Your task to perform on an android device: Go to calendar. Show me events next week Image 0: 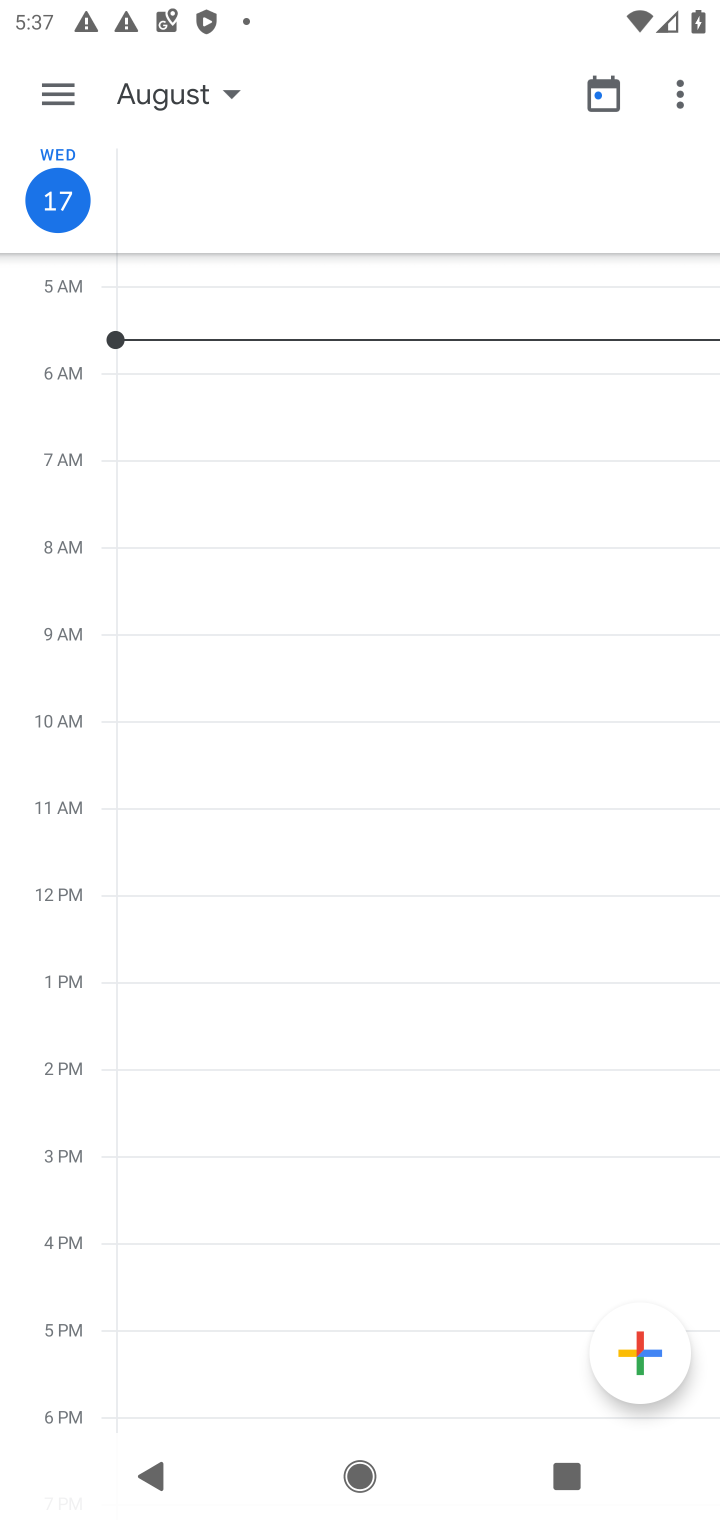
Step 0: press home button
Your task to perform on an android device: Go to calendar. Show me events next week Image 1: 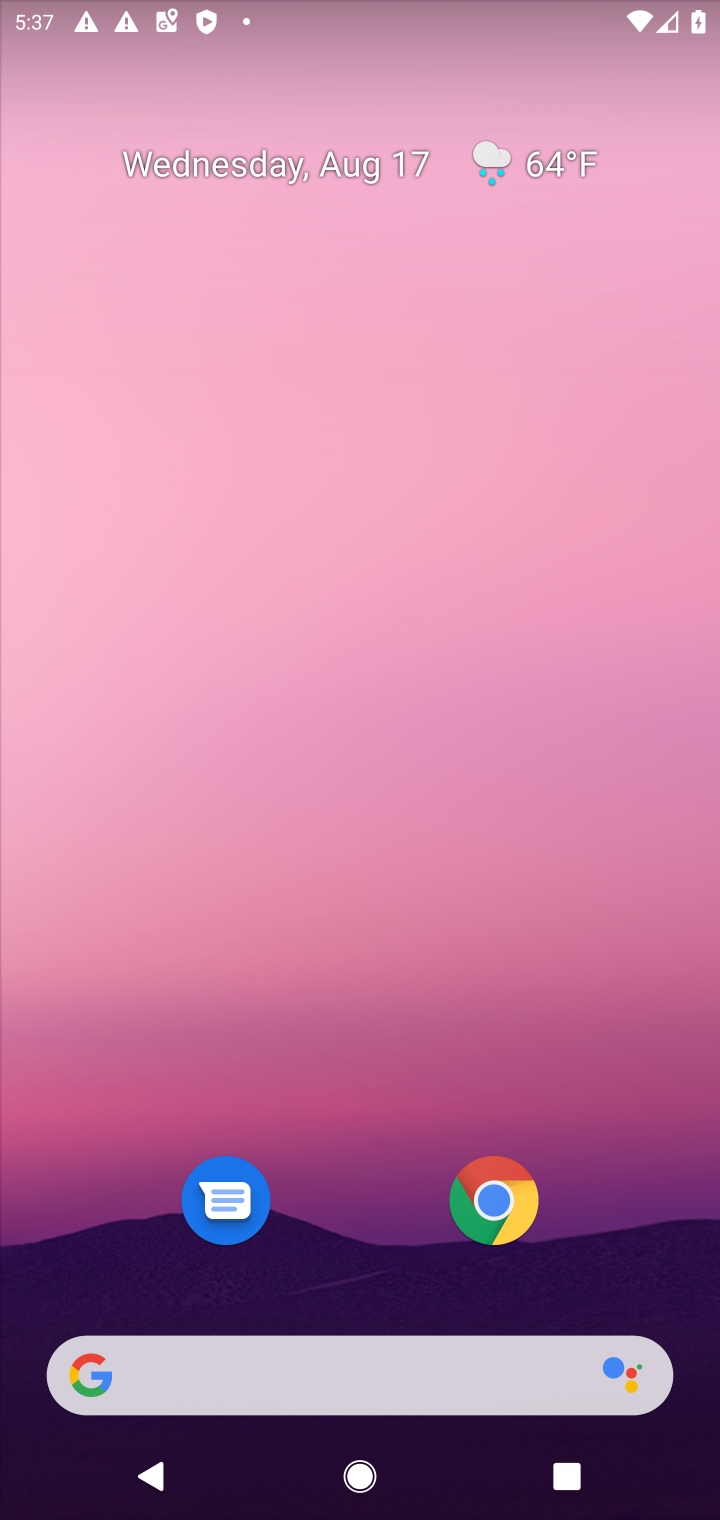
Step 1: drag from (278, 696) to (278, 211)
Your task to perform on an android device: Go to calendar. Show me events next week Image 2: 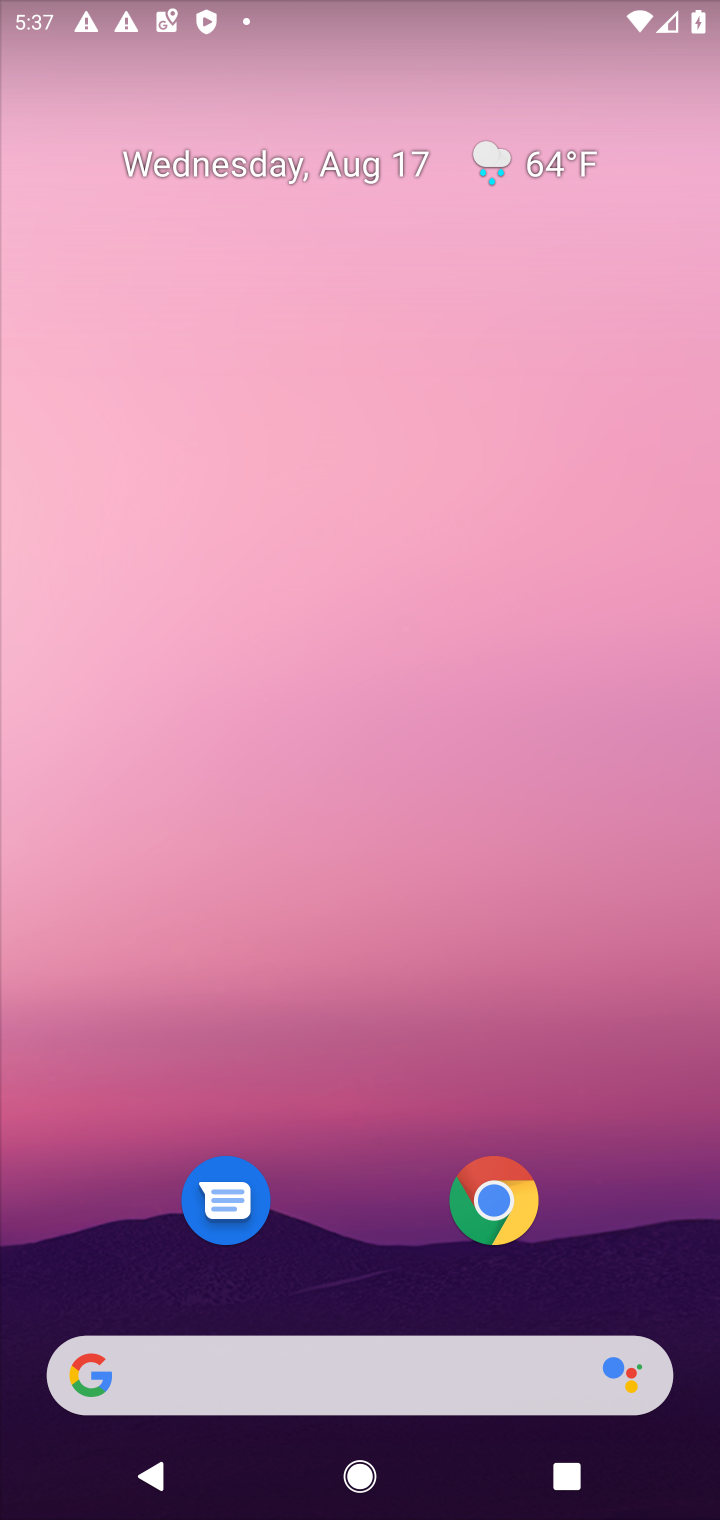
Step 2: drag from (359, 1082) to (357, 291)
Your task to perform on an android device: Go to calendar. Show me events next week Image 3: 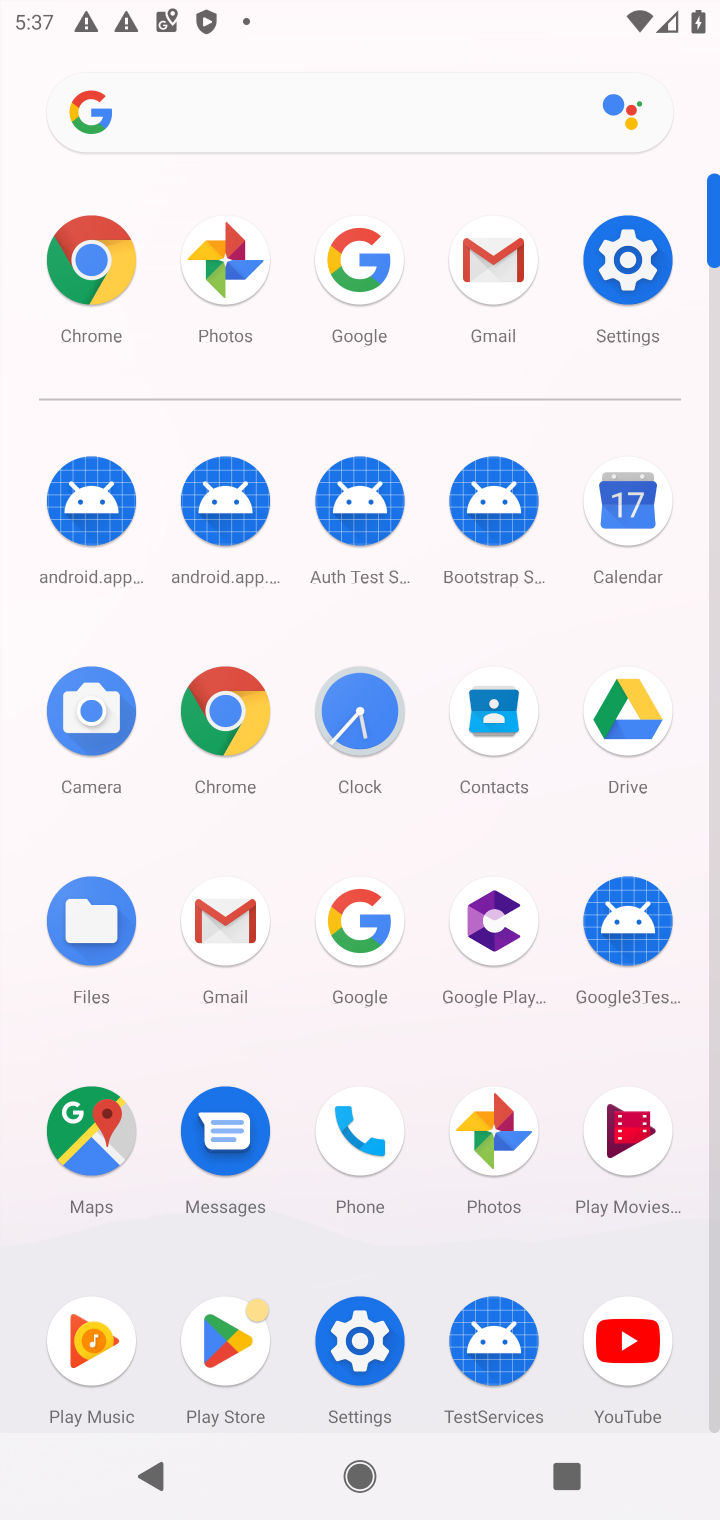
Step 3: click (631, 528)
Your task to perform on an android device: Go to calendar. Show me events next week Image 4: 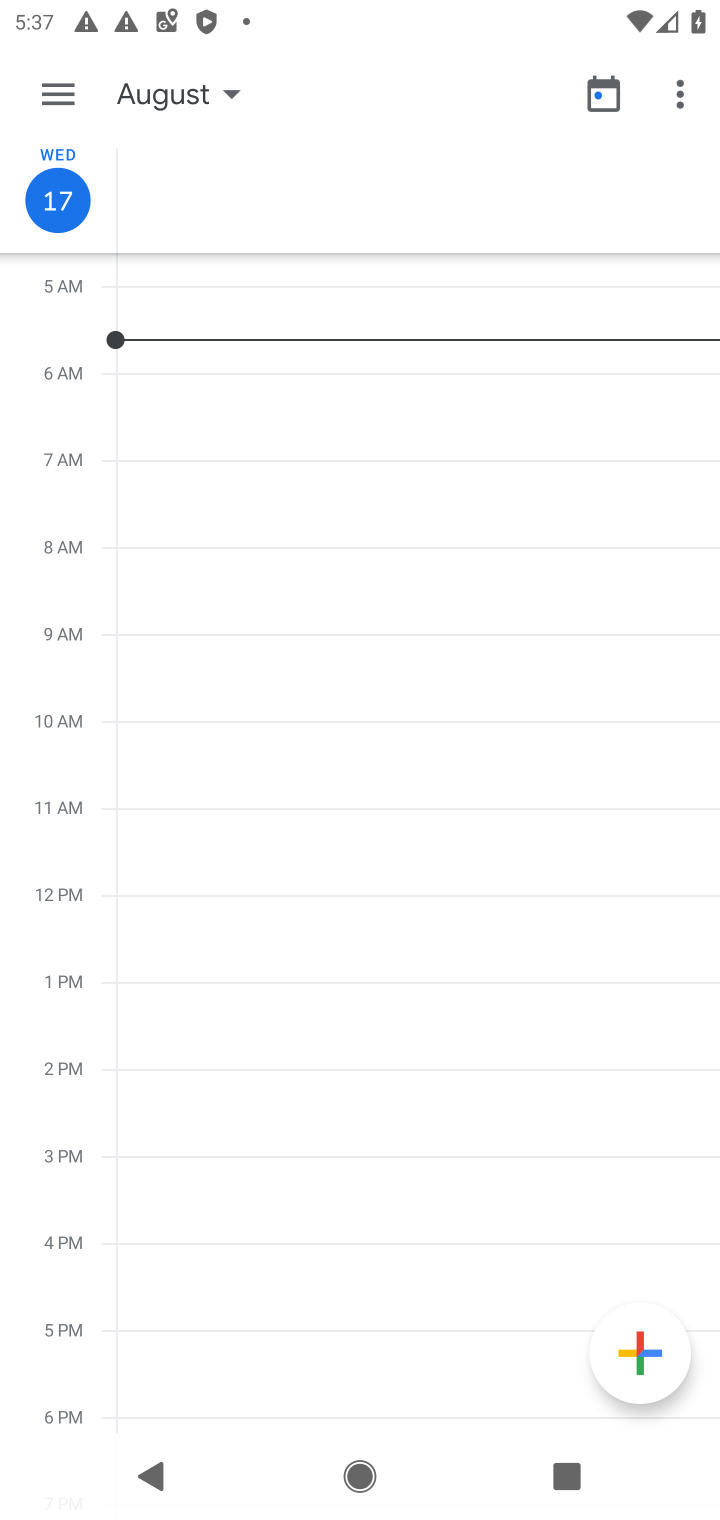
Step 4: click (232, 77)
Your task to perform on an android device: Go to calendar. Show me events next week Image 5: 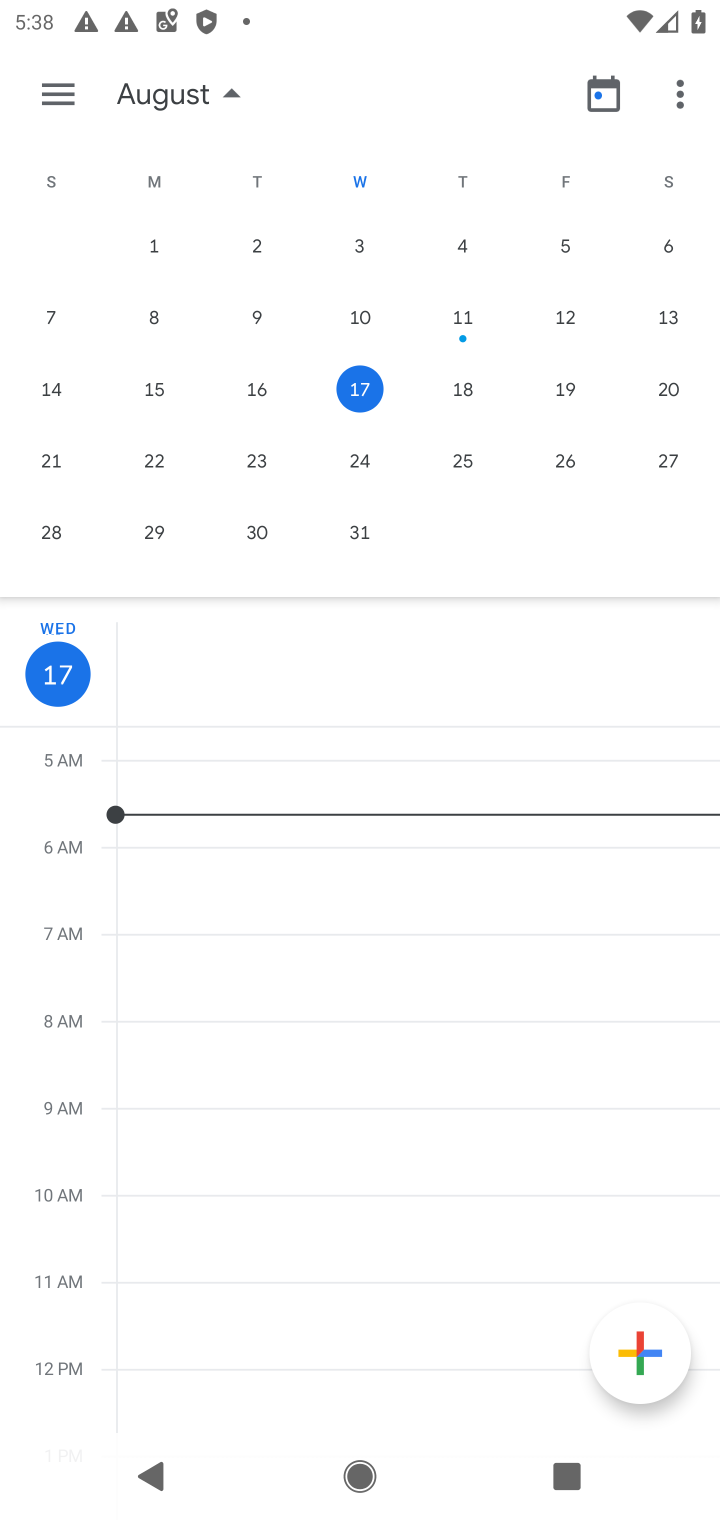
Step 5: drag from (664, 381) to (559, 363)
Your task to perform on an android device: Go to calendar. Show me events next week Image 6: 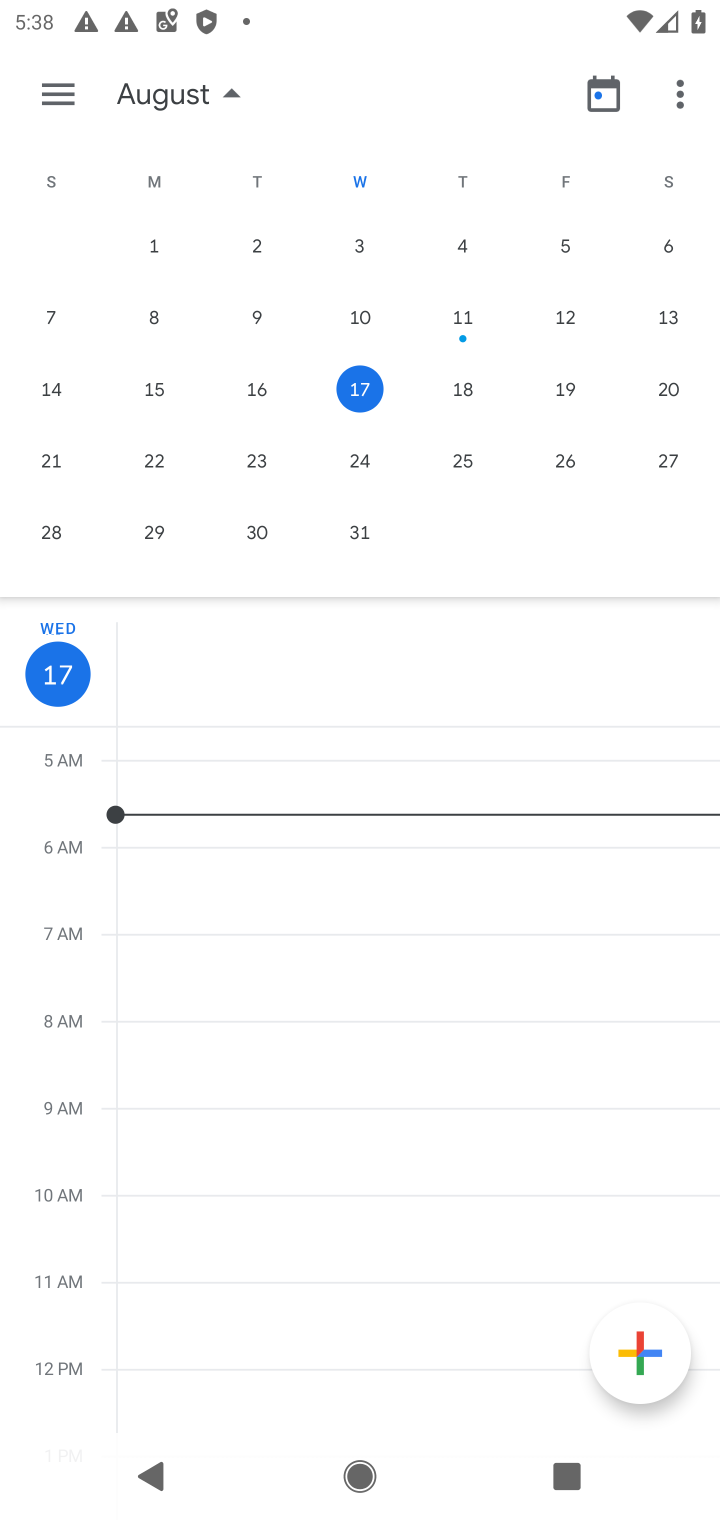
Step 6: click (155, 455)
Your task to perform on an android device: Go to calendar. Show me events next week Image 7: 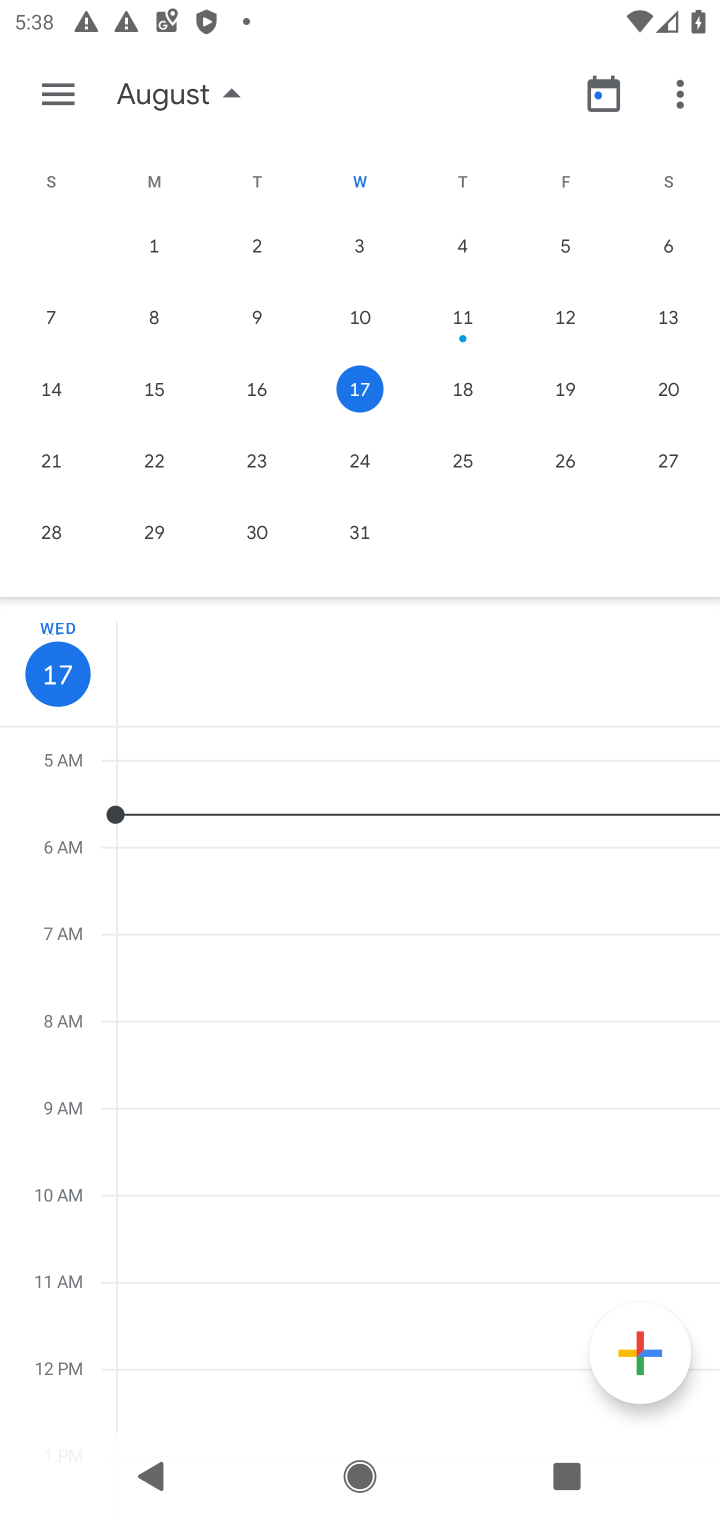
Step 7: click (159, 452)
Your task to perform on an android device: Go to calendar. Show me events next week Image 8: 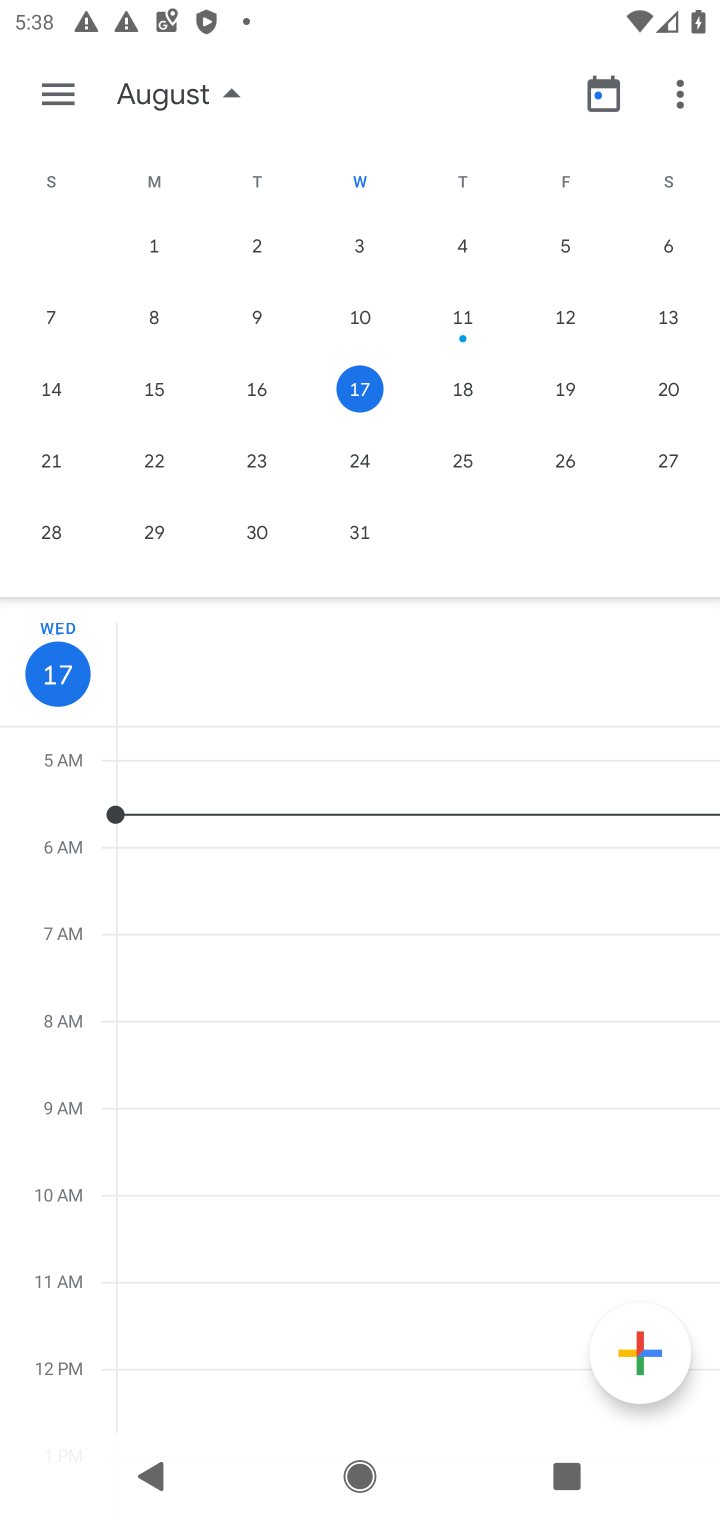
Step 8: click (159, 452)
Your task to perform on an android device: Go to calendar. Show me events next week Image 9: 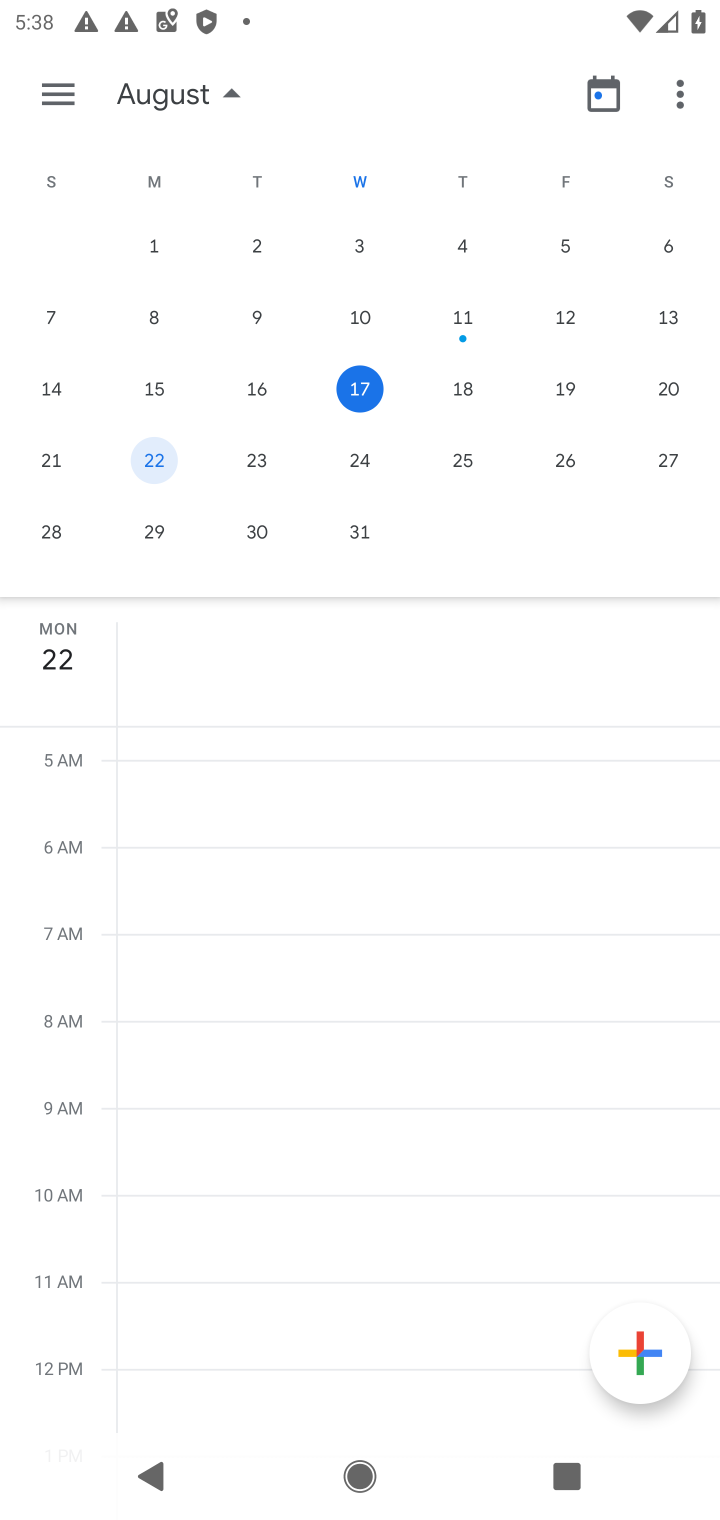
Step 9: click (157, 452)
Your task to perform on an android device: Go to calendar. Show me events next week Image 10: 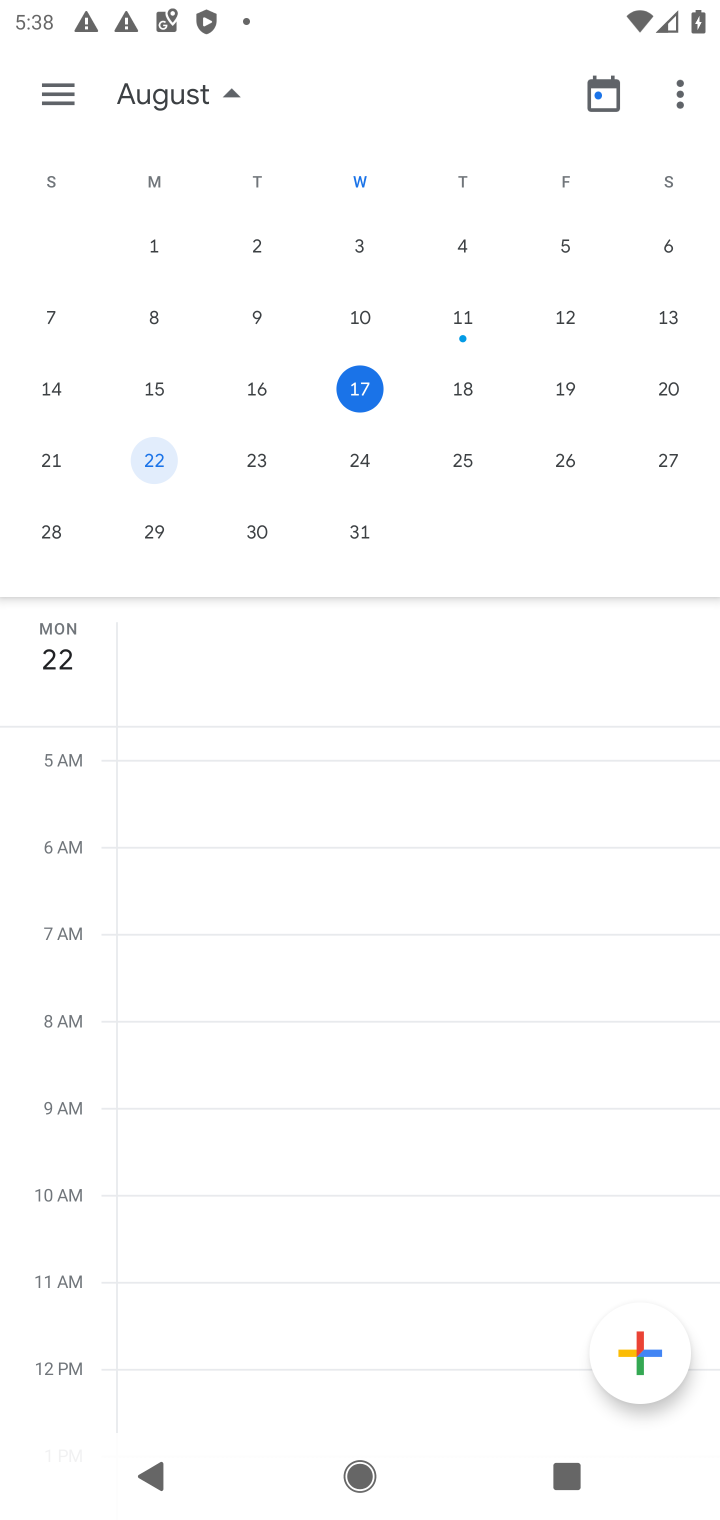
Step 10: click (157, 452)
Your task to perform on an android device: Go to calendar. Show me events next week Image 11: 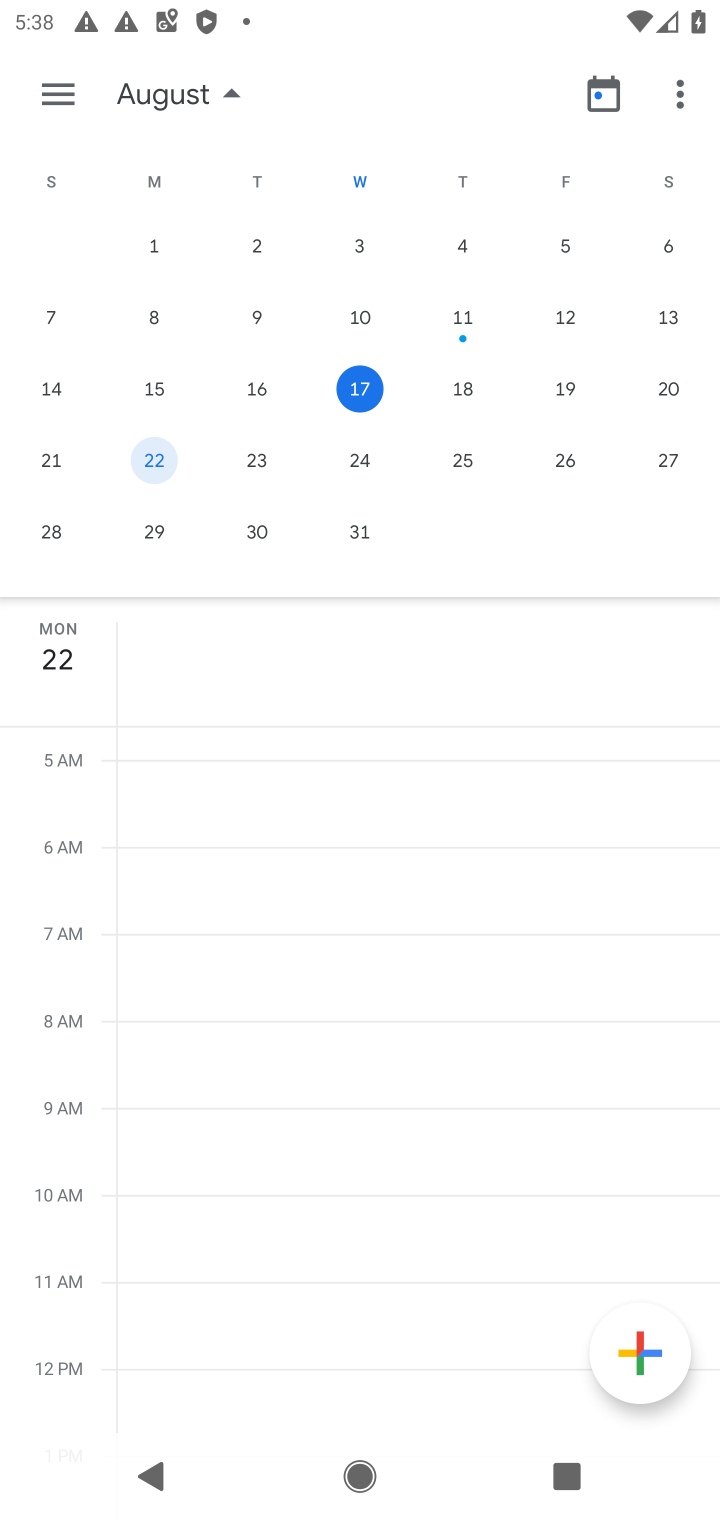
Step 11: click (54, 95)
Your task to perform on an android device: Go to calendar. Show me events next week Image 12: 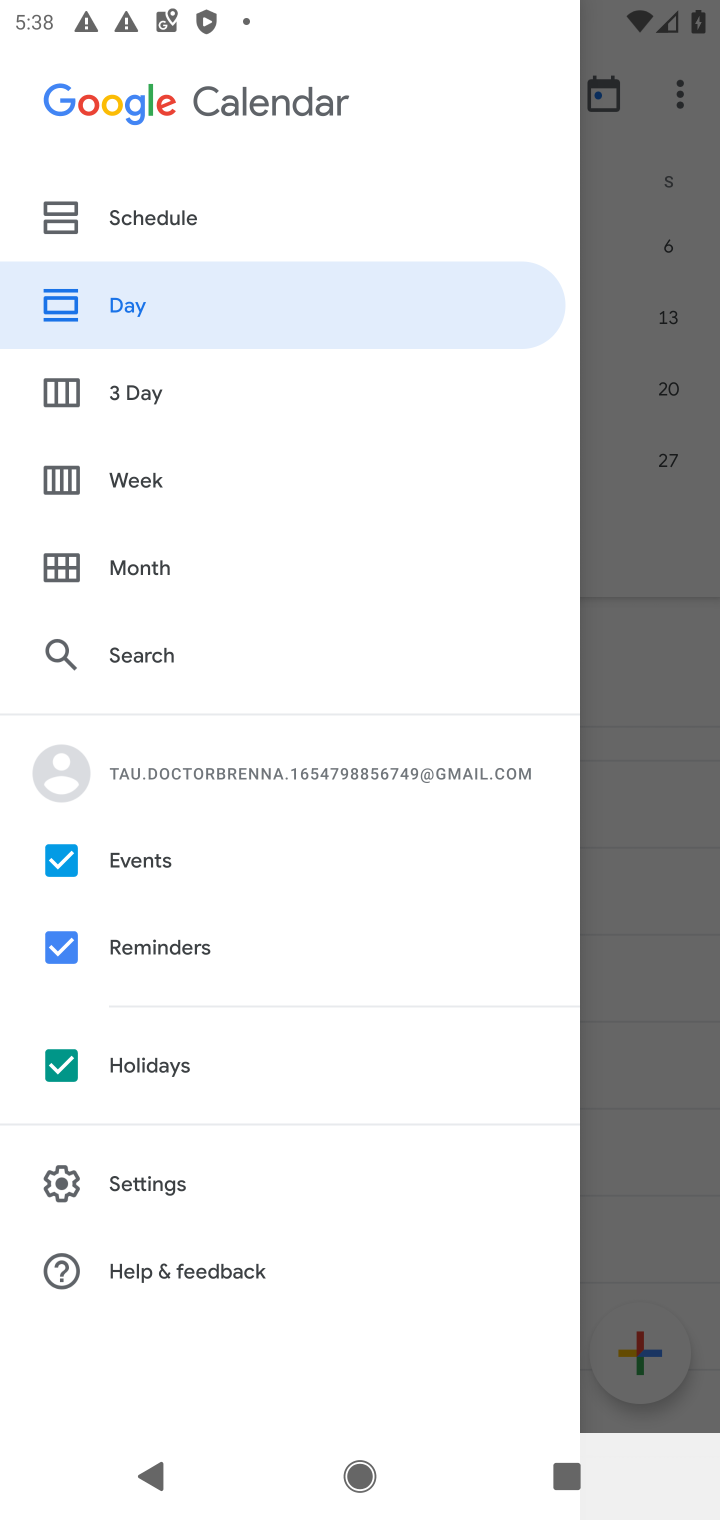
Step 12: click (135, 473)
Your task to perform on an android device: Go to calendar. Show me events next week Image 13: 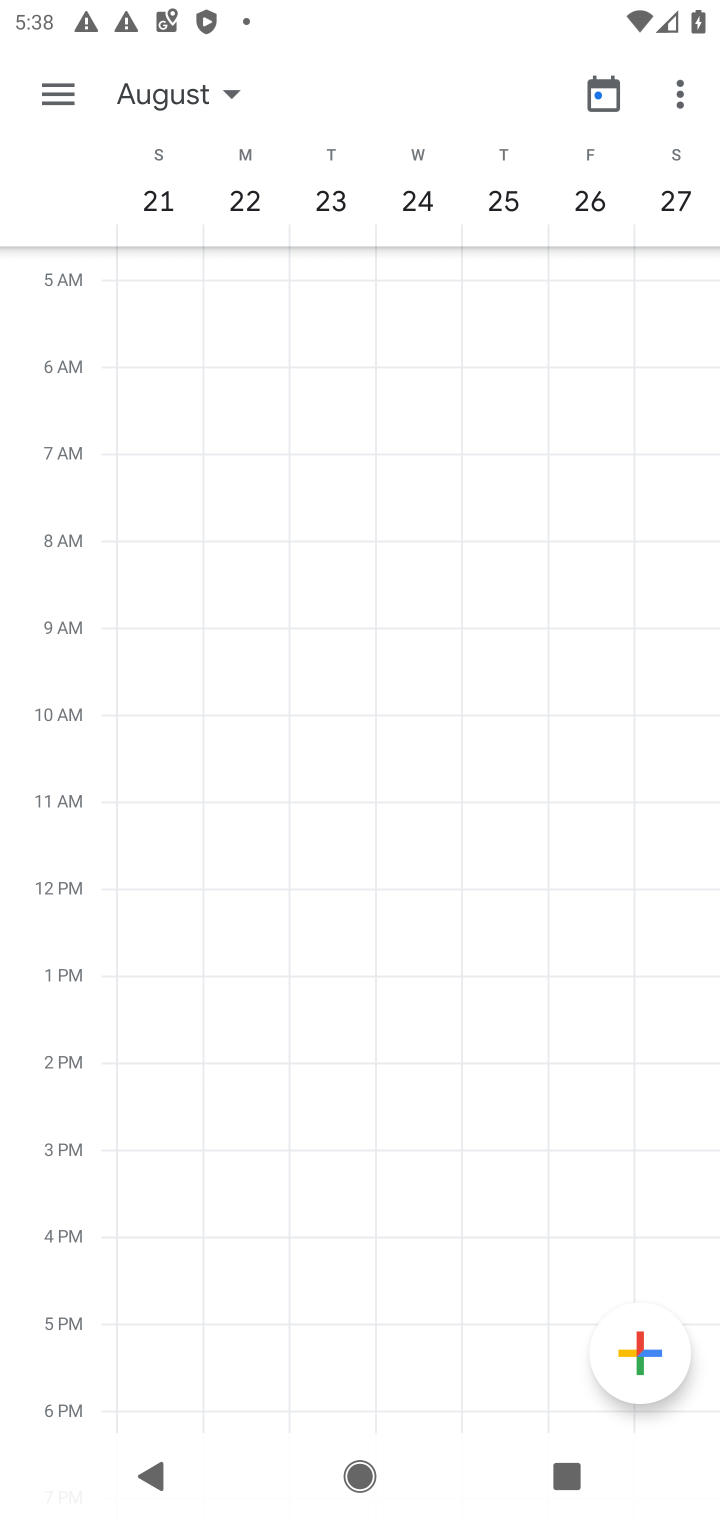
Step 13: task complete